Your task to perform on an android device: toggle data saver in the chrome app Image 0: 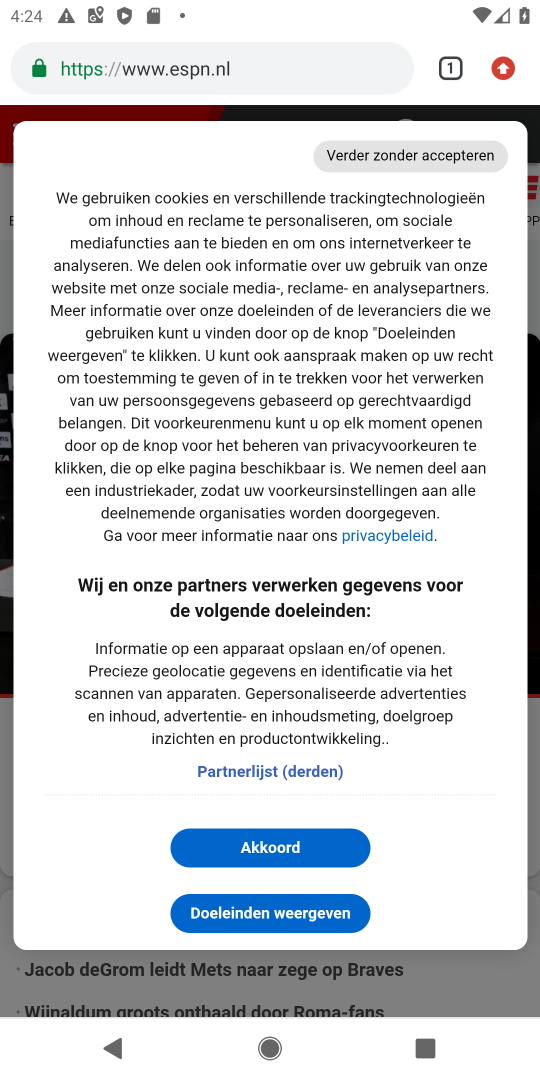
Step 0: press home button
Your task to perform on an android device: toggle data saver in the chrome app Image 1: 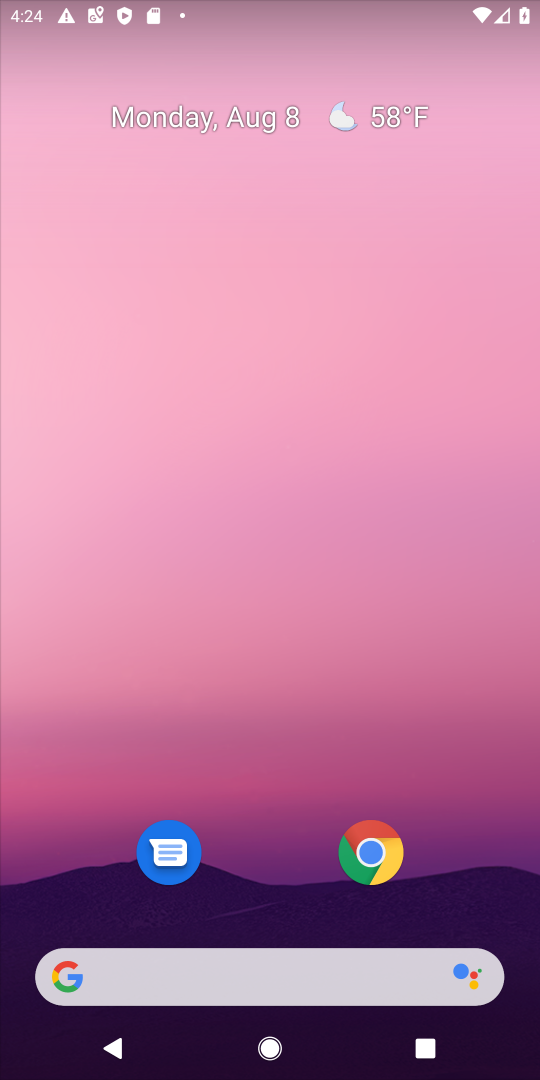
Step 1: drag from (335, 406) to (427, 4)
Your task to perform on an android device: toggle data saver in the chrome app Image 2: 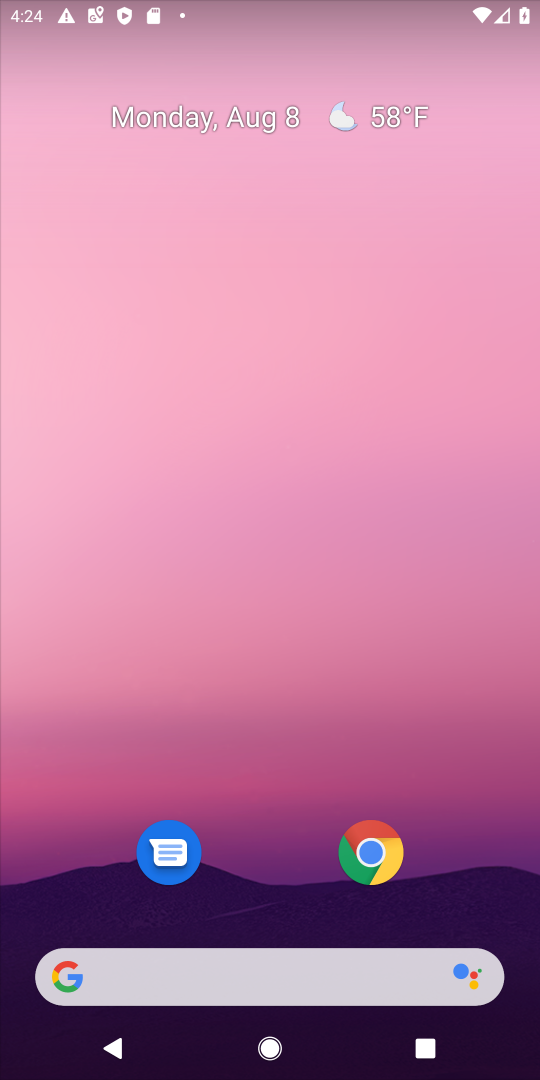
Step 2: drag from (224, 752) to (379, 3)
Your task to perform on an android device: toggle data saver in the chrome app Image 3: 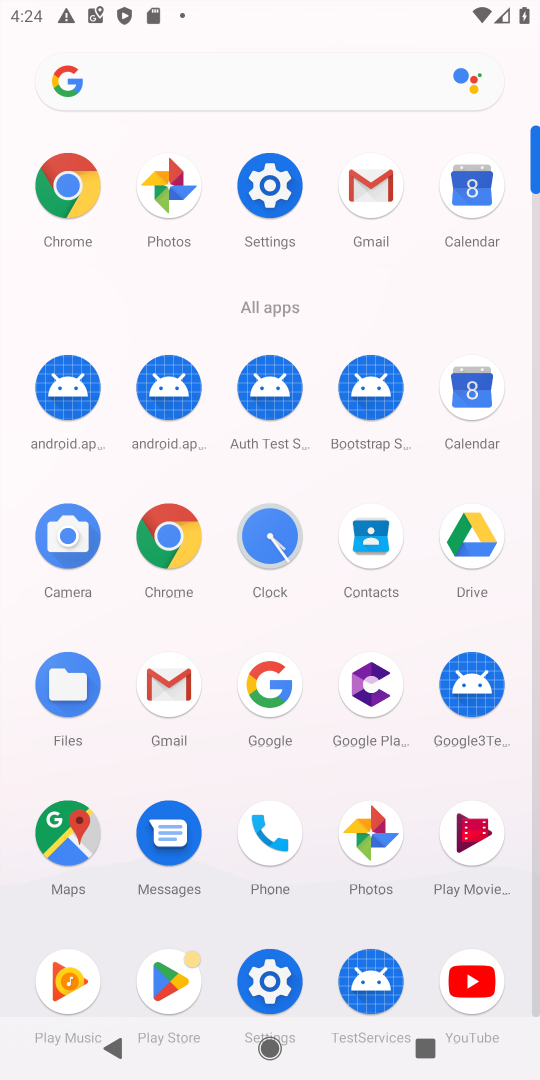
Step 3: click (168, 536)
Your task to perform on an android device: toggle data saver in the chrome app Image 4: 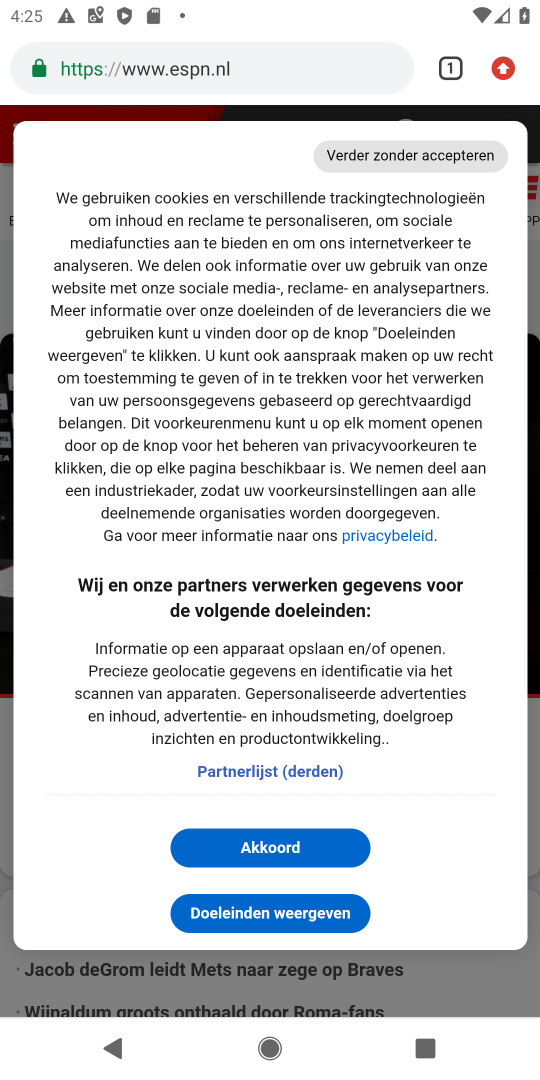
Step 4: drag from (524, 61) to (266, 879)
Your task to perform on an android device: toggle data saver in the chrome app Image 5: 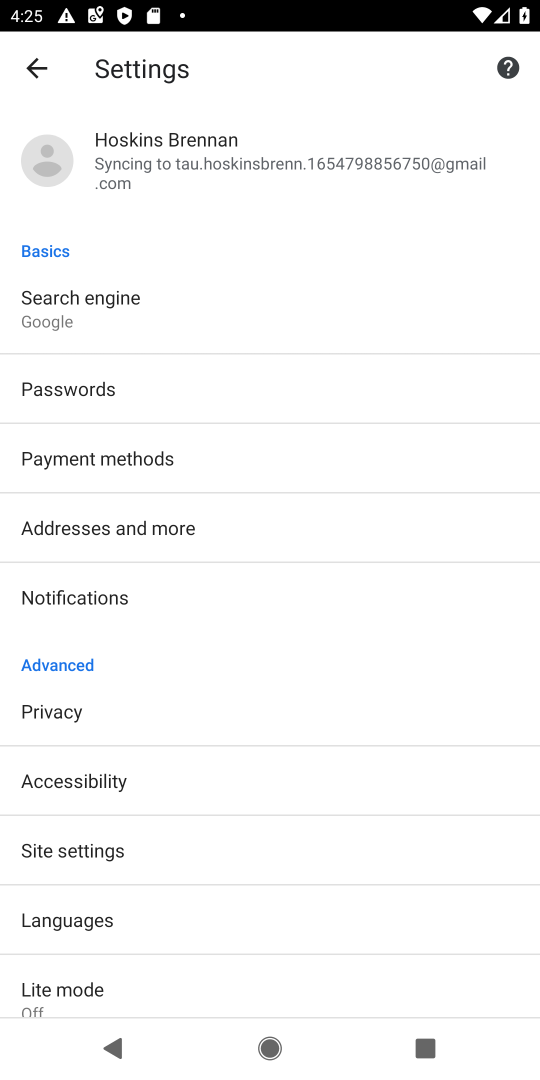
Step 5: drag from (253, 968) to (257, 143)
Your task to perform on an android device: toggle data saver in the chrome app Image 6: 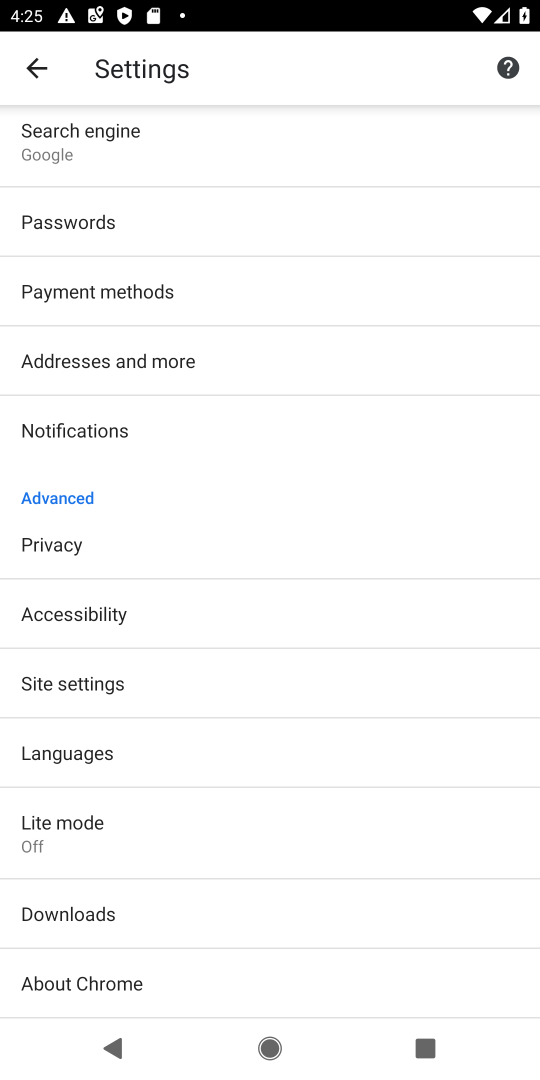
Step 6: click (78, 825)
Your task to perform on an android device: toggle data saver in the chrome app Image 7: 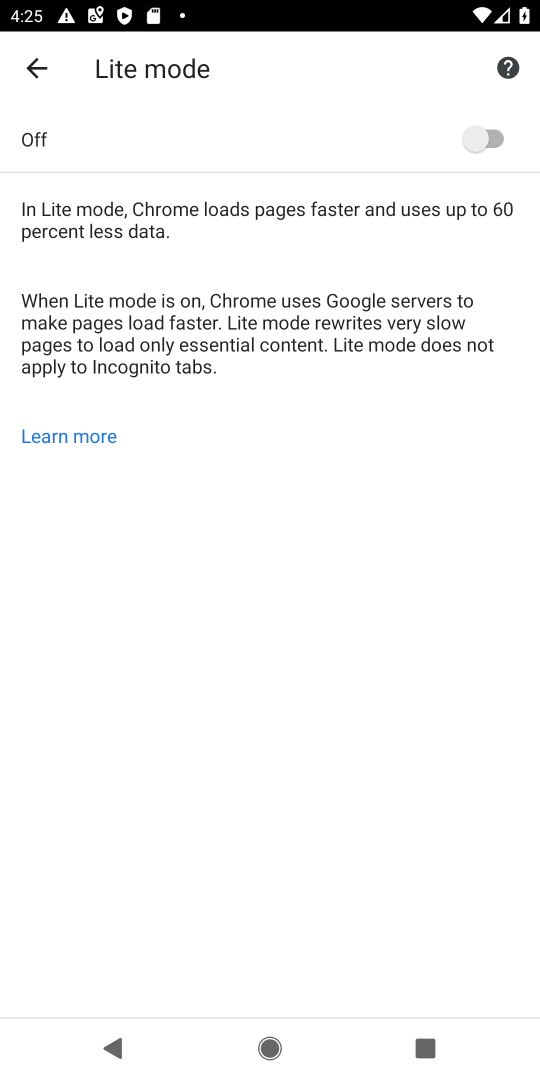
Step 7: click (493, 153)
Your task to perform on an android device: toggle data saver in the chrome app Image 8: 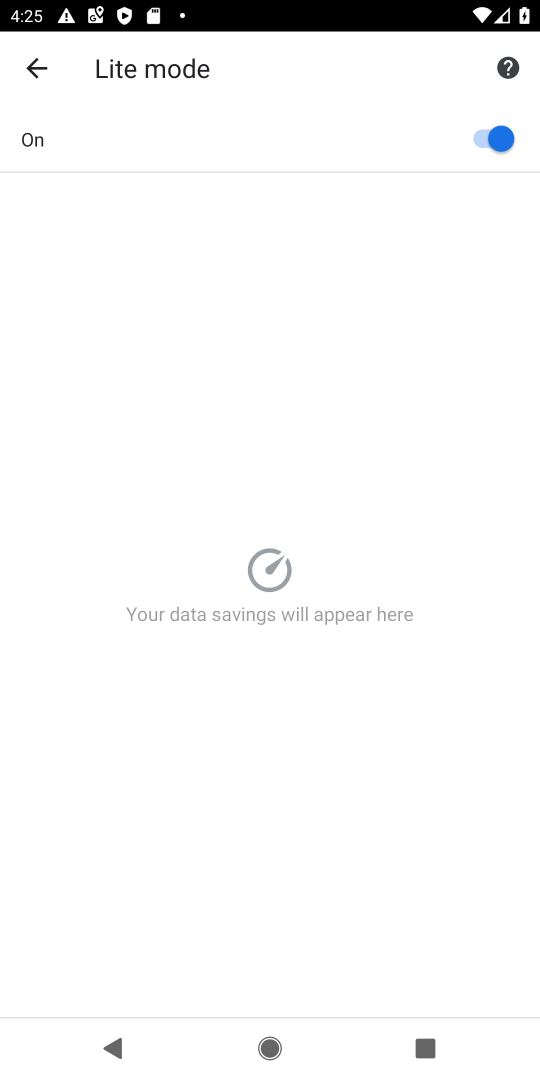
Step 8: task complete